Your task to perform on an android device: toggle translation in the chrome app Image 0: 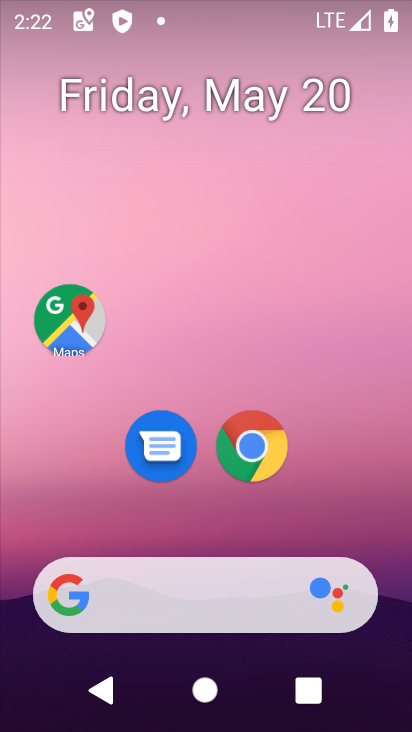
Step 0: click (261, 444)
Your task to perform on an android device: toggle translation in the chrome app Image 1: 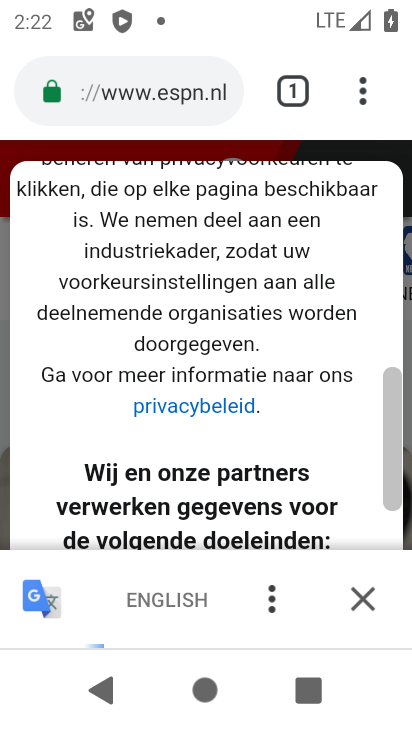
Step 1: click (363, 94)
Your task to perform on an android device: toggle translation in the chrome app Image 2: 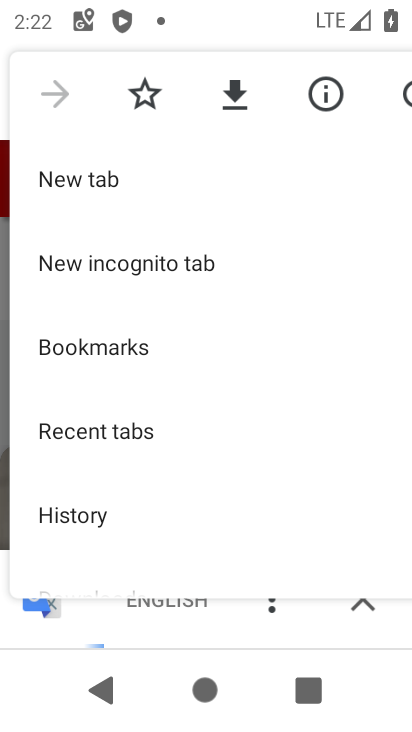
Step 2: drag from (166, 455) to (163, 136)
Your task to perform on an android device: toggle translation in the chrome app Image 3: 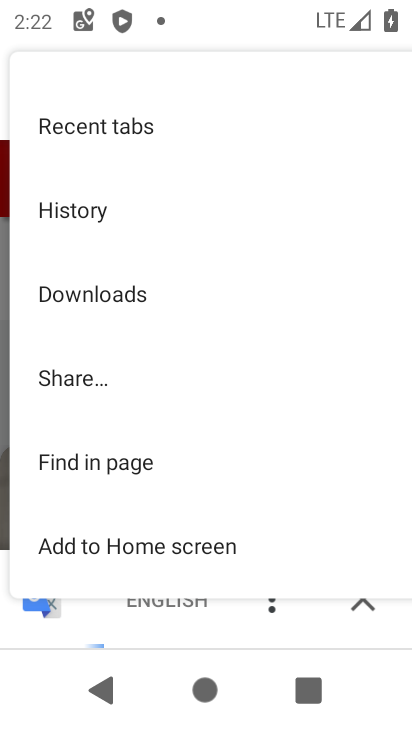
Step 3: drag from (148, 412) to (154, 180)
Your task to perform on an android device: toggle translation in the chrome app Image 4: 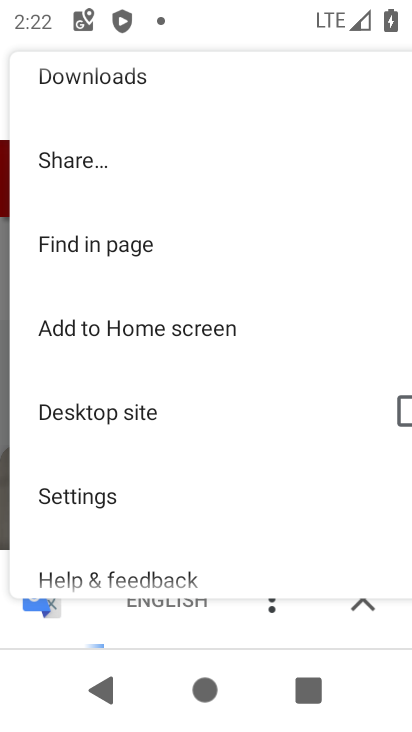
Step 4: click (88, 498)
Your task to perform on an android device: toggle translation in the chrome app Image 5: 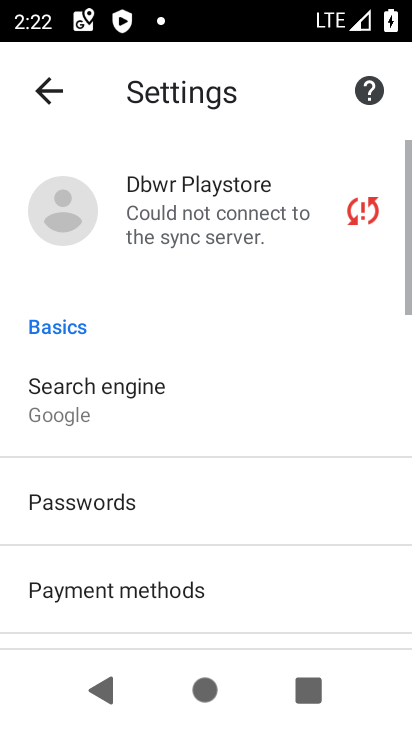
Step 5: drag from (201, 548) to (196, 122)
Your task to perform on an android device: toggle translation in the chrome app Image 6: 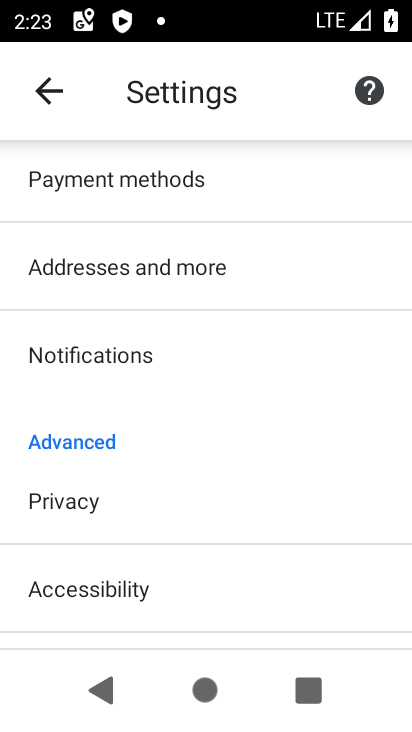
Step 6: drag from (172, 486) to (164, 185)
Your task to perform on an android device: toggle translation in the chrome app Image 7: 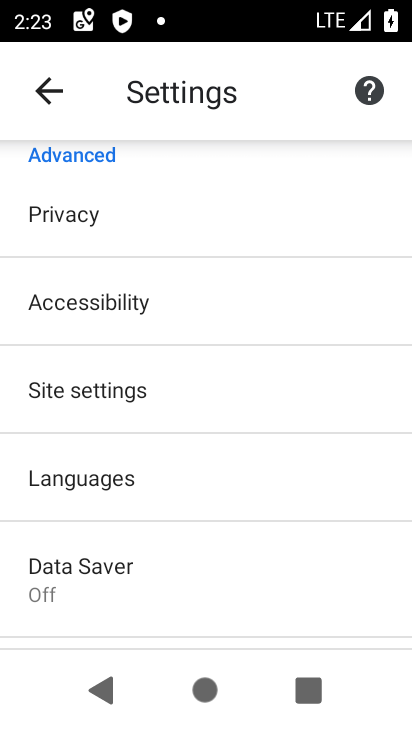
Step 7: click (103, 481)
Your task to perform on an android device: toggle translation in the chrome app Image 8: 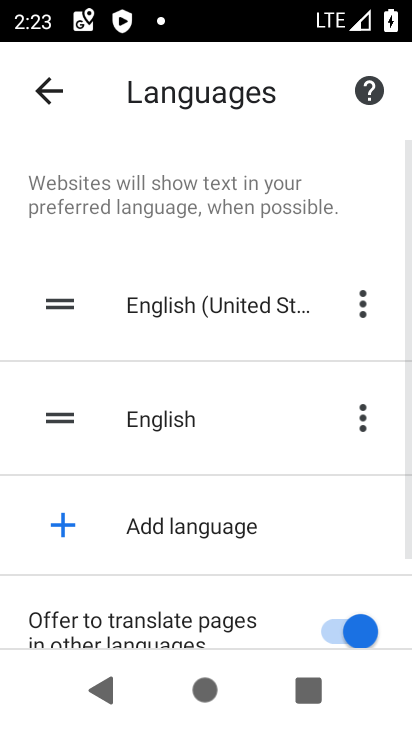
Step 8: drag from (166, 551) to (156, 242)
Your task to perform on an android device: toggle translation in the chrome app Image 9: 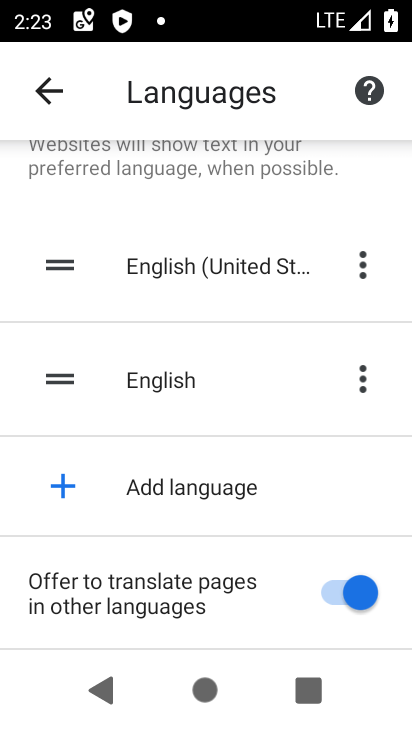
Step 9: click (362, 588)
Your task to perform on an android device: toggle translation in the chrome app Image 10: 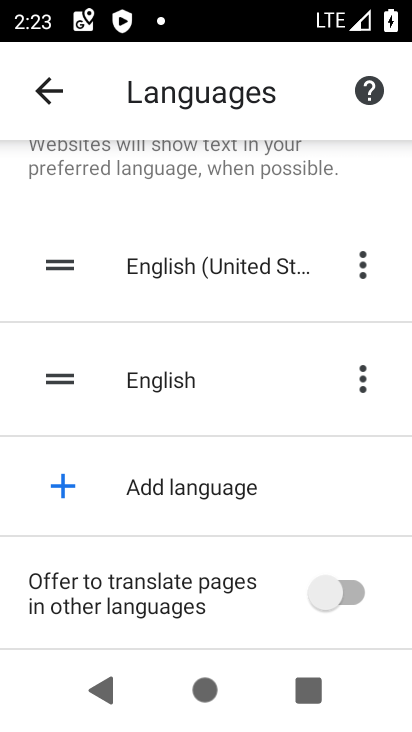
Step 10: task complete